Your task to perform on an android device: Go to Yahoo.com Image 0: 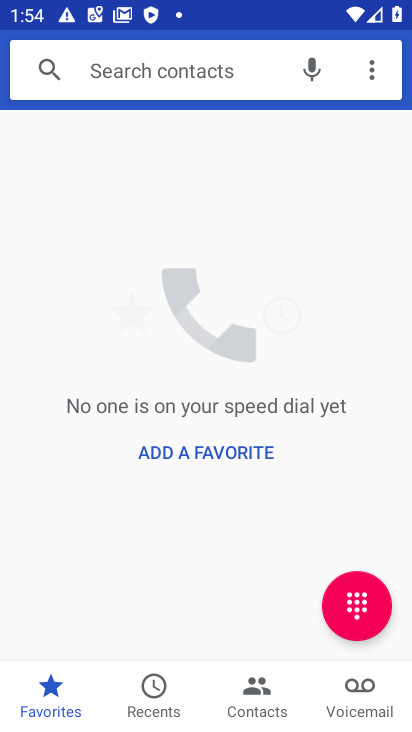
Step 0: press home button
Your task to perform on an android device: Go to Yahoo.com Image 1: 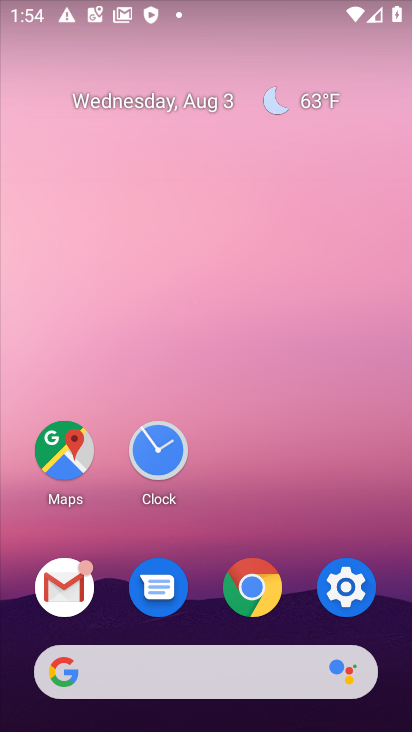
Step 1: click (259, 573)
Your task to perform on an android device: Go to Yahoo.com Image 2: 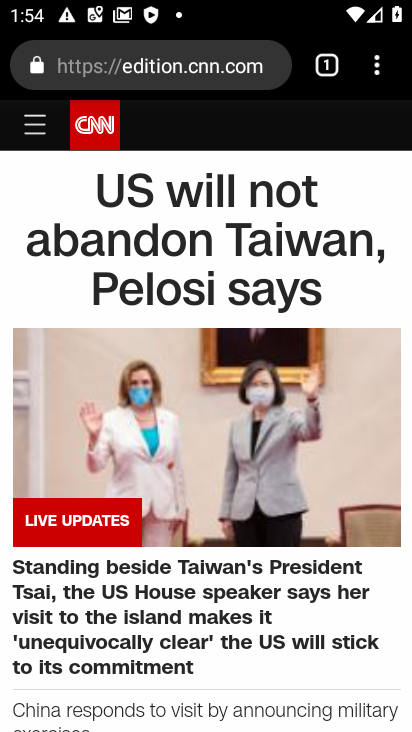
Step 2: click (376, 66)
Your task to perform on an android device: Go to Yahoo.com Image 3: 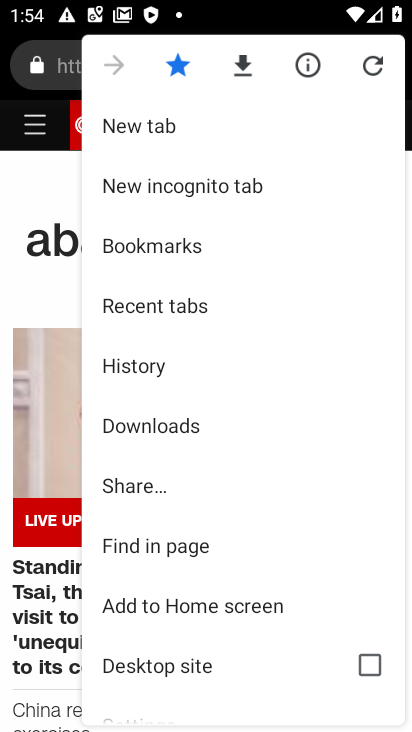
Step 3: click (151, 124)
Your task to perform on an android device: Go to Yahoo.com Image 4: 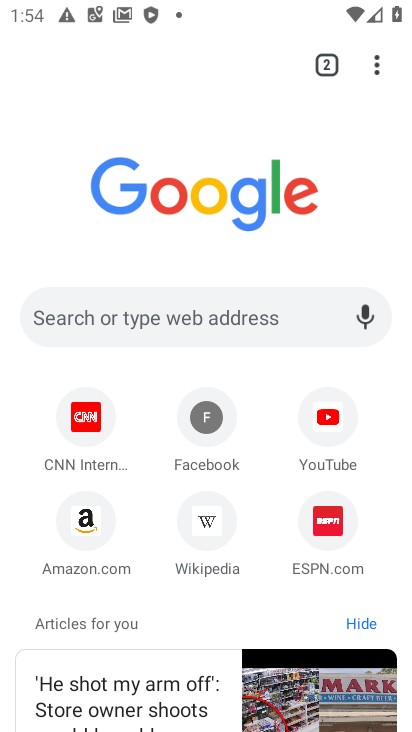
Step 4: click (155, 309)
Your task to perform on an android device: Go to Yahoo.com Image 5: 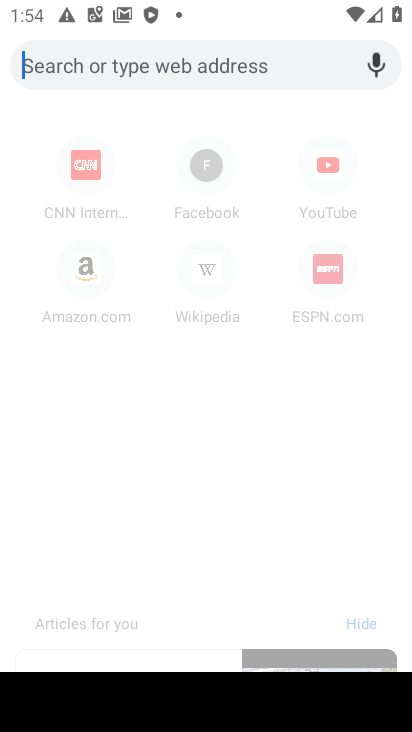
Step 5: type "yahoo.com"
Your task to perform on an android device: Go to Yahoo.com Image 6: 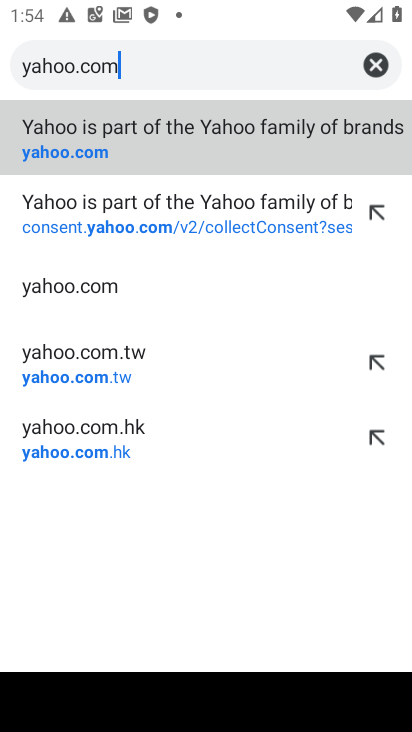
Step 6: click (95, 134)
Your task to perform on an android device: Go to Yahoo.com Image 7: 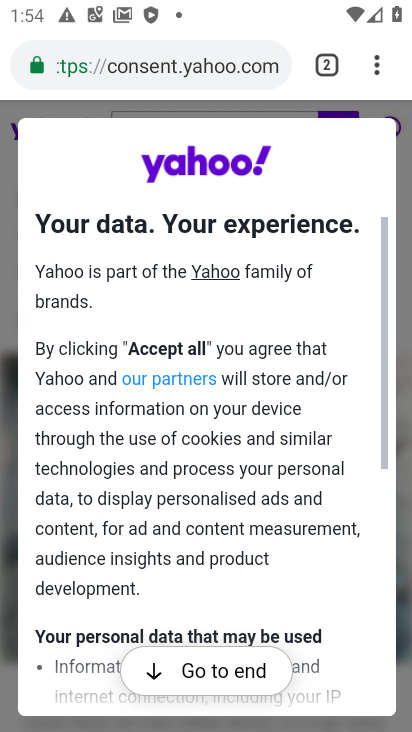
Step 7: drag from (275, 631) to (290, 280)
Your task to perform on an android device: Go to Yahoo.com Image 8: 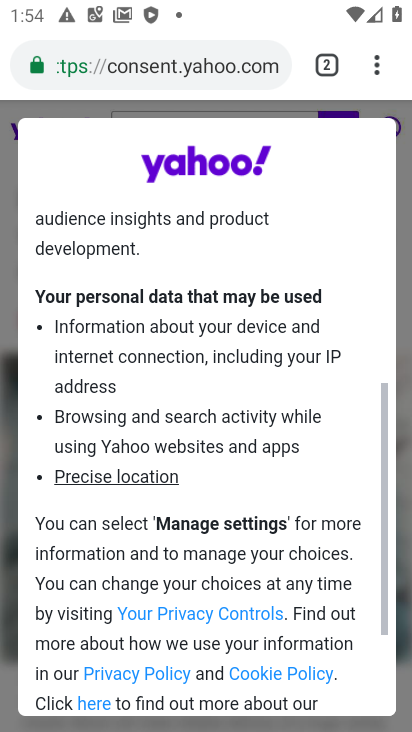
Step 8: drag from (243, 625) to (232, 316)
Your task to perform on an android device: Go to Yahoo.com Image 9: 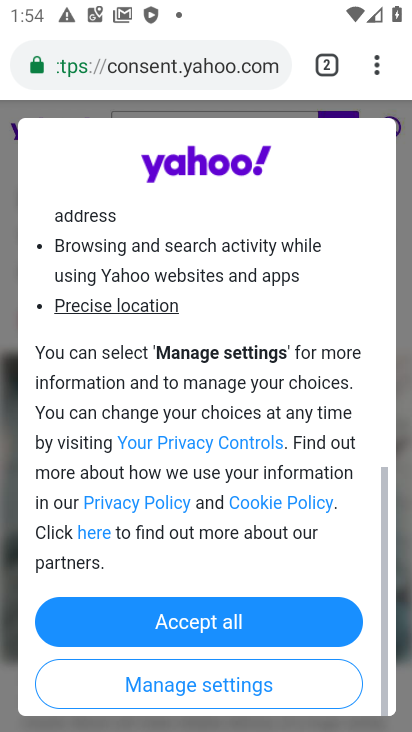
Step 9: click (227, 635)
Your task to perform on an android device: Go to Yahoo.com Image 10: 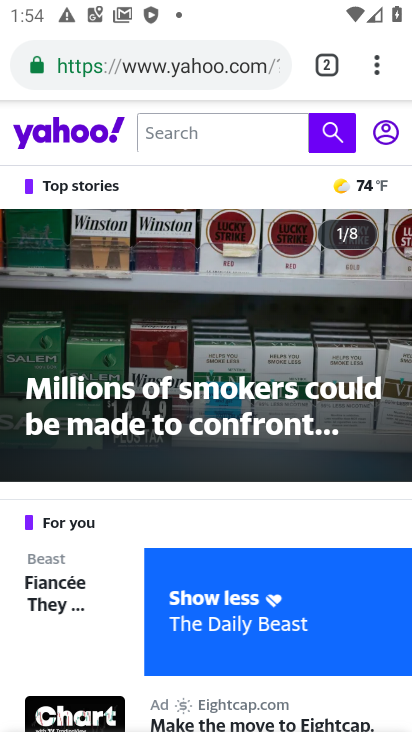
Step 10: task complete